Your task to perform on an android device: Open Chrome and go to the settings page Image 0: 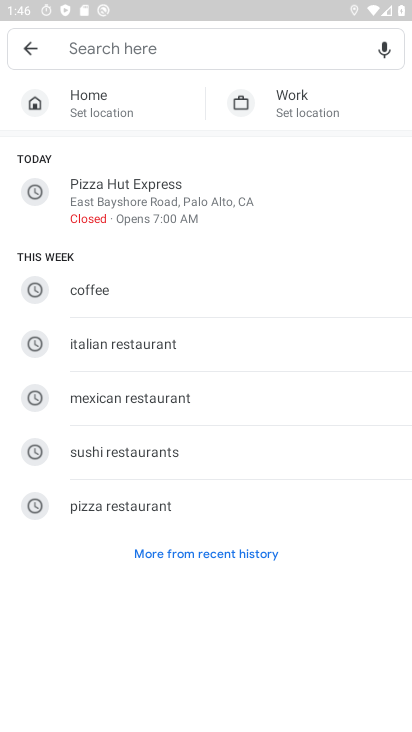
Step 0: press home button
Your task to perform on an android device: Open Chrome and go to the settings page Image 1: 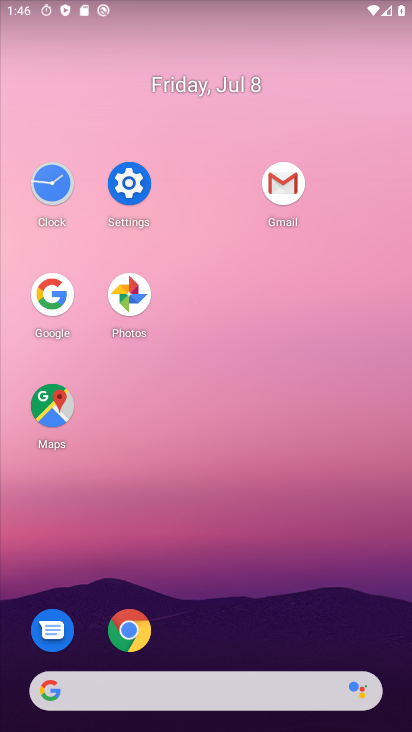
Step 1: click (118, 620)
Your task to perform on an android device: Open Chrome and go to the settings page Image 2: 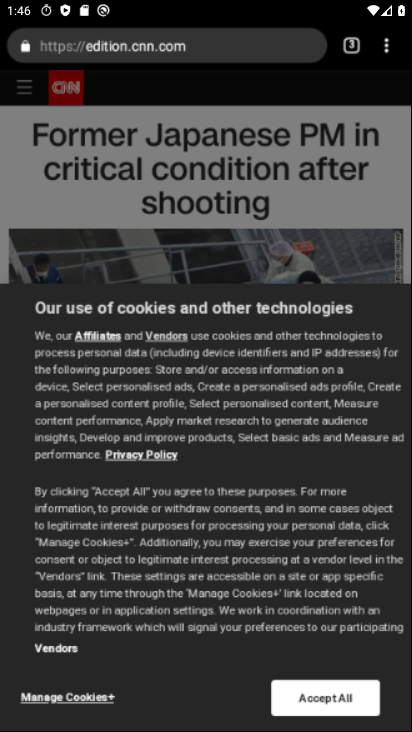
Step 2: click (389, 40)
Your task to perform on an android device: Open Chrome and go to the settings page Image 3: 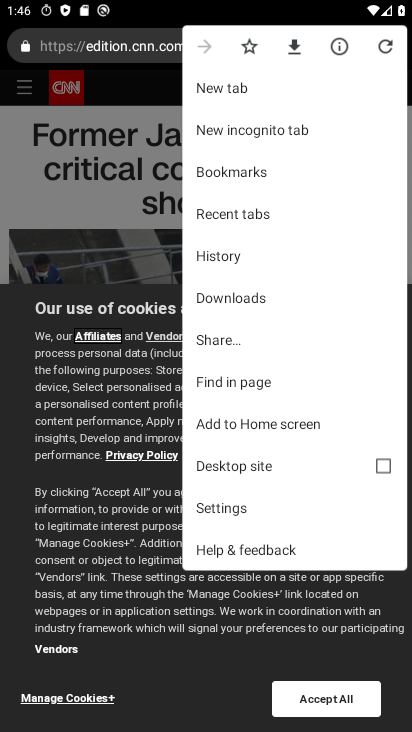
Step 3: click (243, 504)
Your task to perform on an android device: Open Chrome and go to the settings page Image 4: 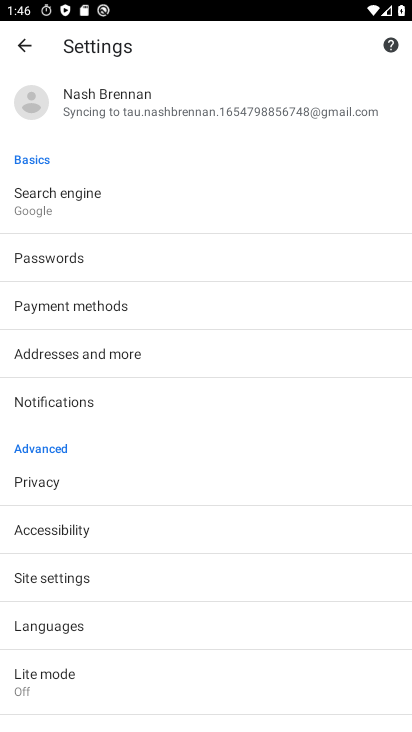
Step 4: task complete